Your task to perform on an android device: Open the map Image 0: 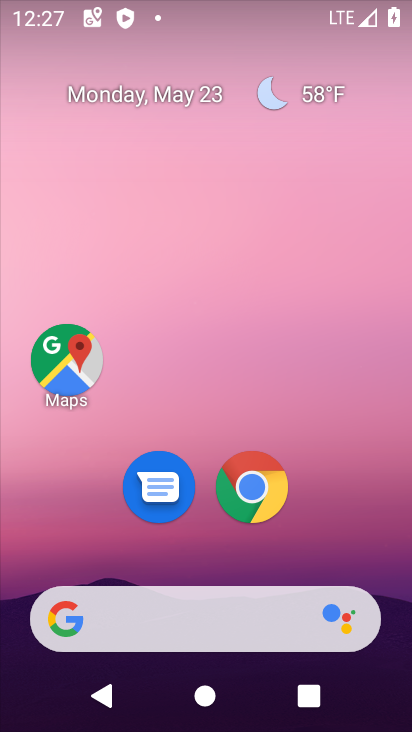
Step 0: click (65, 358)
Your task to perform on an android device: Open the map Image 1: 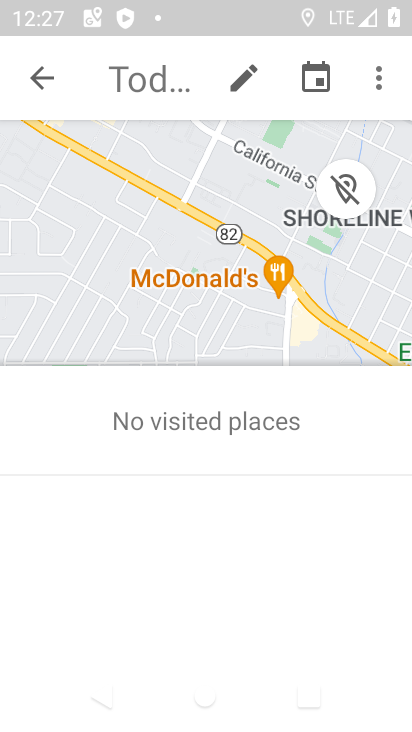
Step 1: task complete